Your task to perform on an android device: What's the weather? Image 0: 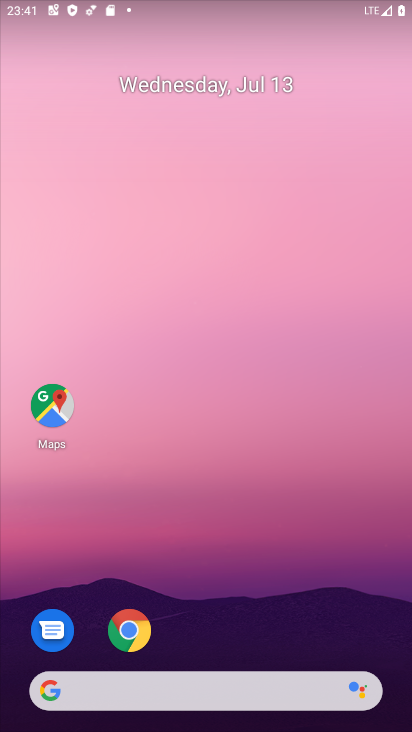
Step 0: click (268, 694)
Your task to perform on an android device: What's the weather? Image 1: 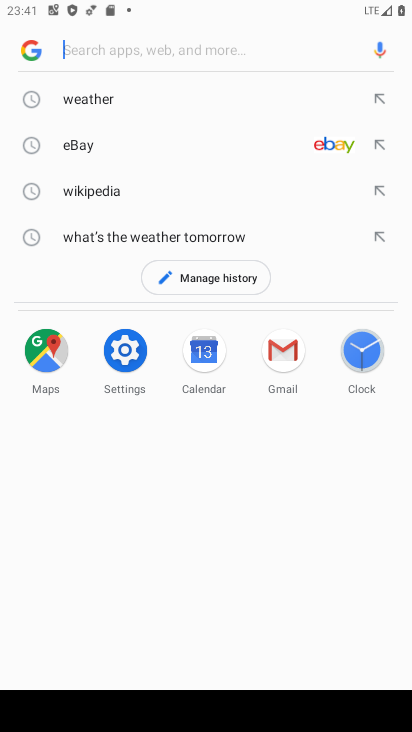
Step 1: click (122, 109)
Your task to perform on an android device: What's the weather? Image 2: 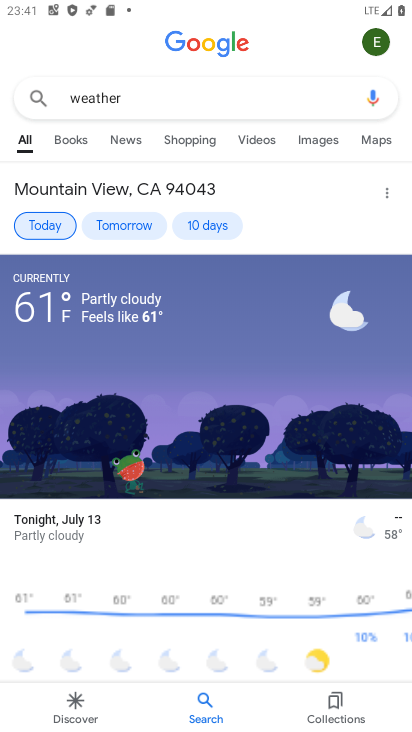
Step 2: task complete